Your task to perform on an android device: Show me popular videos on Youtube Image 0: 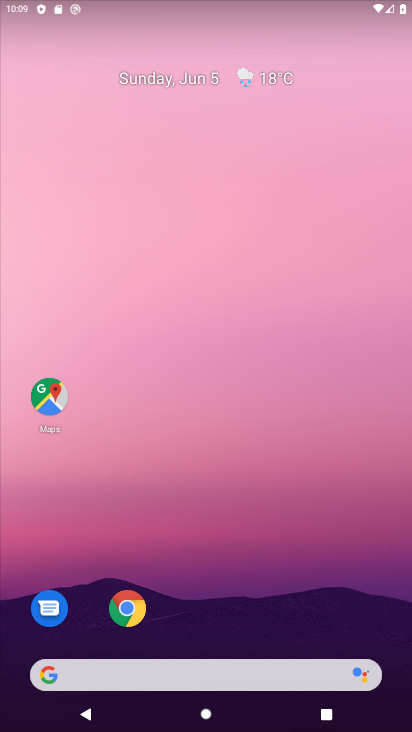
Step 0: task complete